Your task to perform on an android device: visit the assistant section in the google photos Image 0: 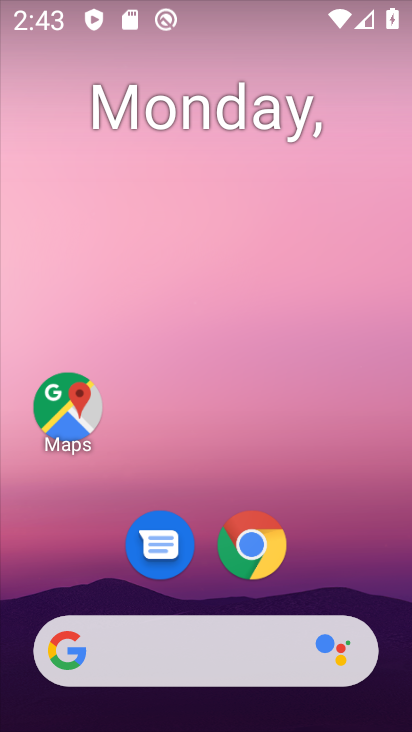
Step 0: drag from (220, 578) to (239, 127)
Your task to perform on an android device: visit the assistant section in the google photos Image 1: 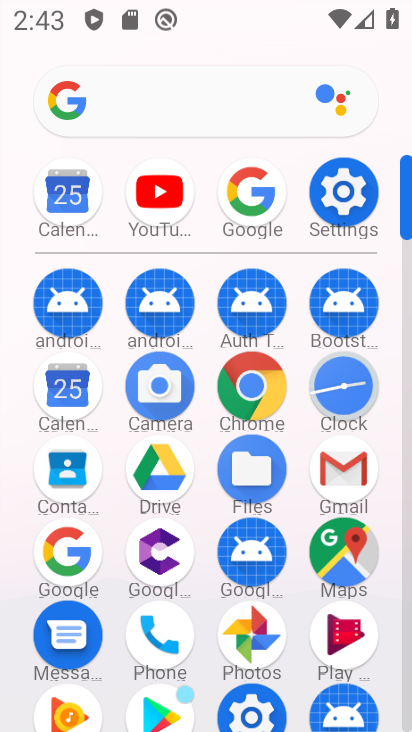
Step 1: click (258, 633)
Your task to perform on an android device: visit the assistant section in the google photos Image 2: 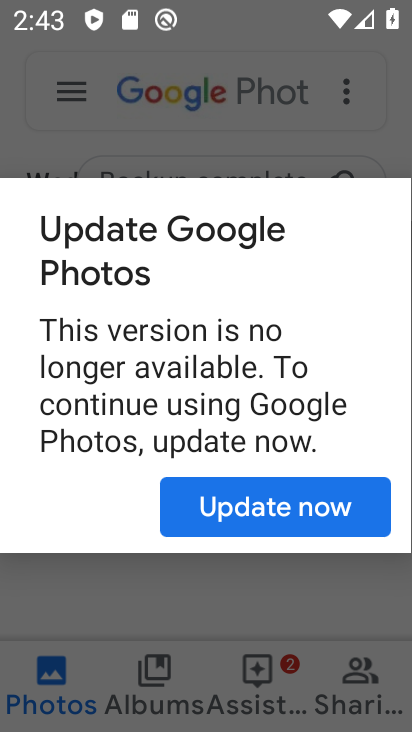
Step 2: click (251, 502)
Your task to perform on an android device: visit the assistant section in the google photos Image 3: 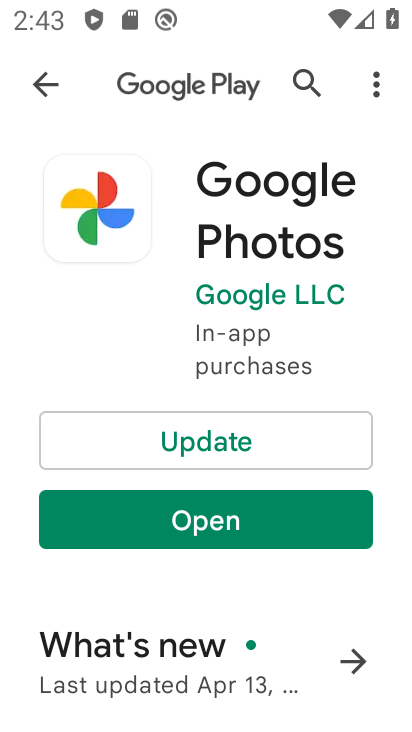
Step 3: click (246, 523)
Your task to perform on an android device: visit the assistant section in the google photos Image 4: 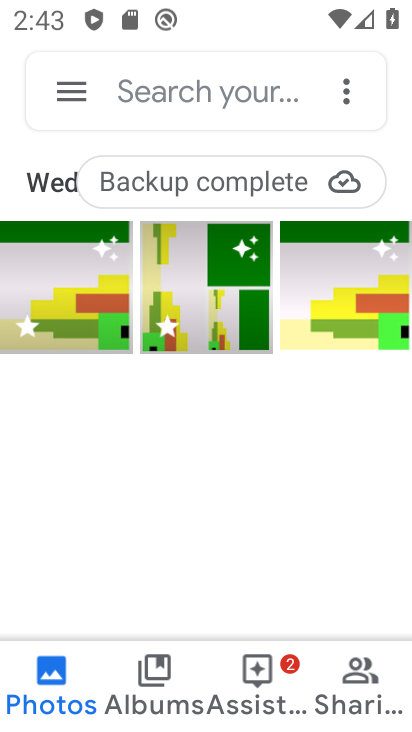
Step 4: click (273, 688)
Your task to perform on an android device: visit the assistant section in the google photos Image 5: 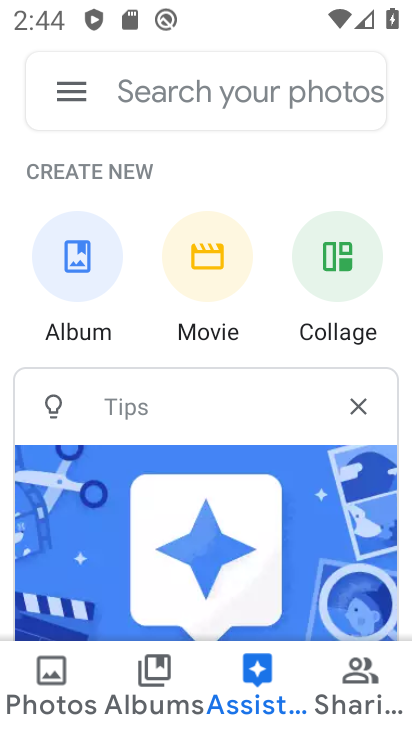
Step 5: task complete